Your task to perform on an android device: Go to Yahoo.com Image 0: 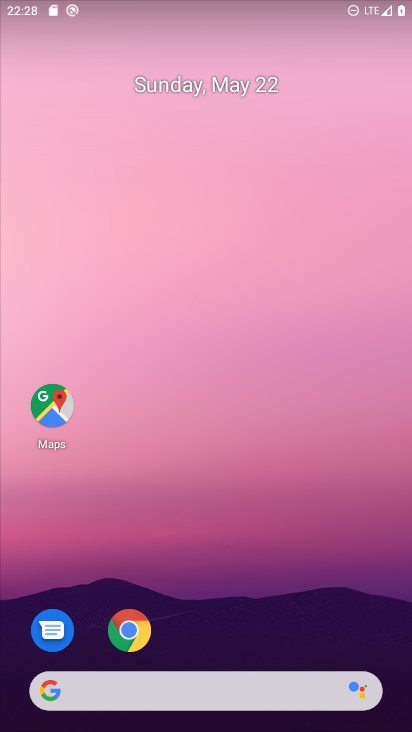
Step 0: press home button
Your task to perform on an android device: Go to Yahoo.com Image 1: 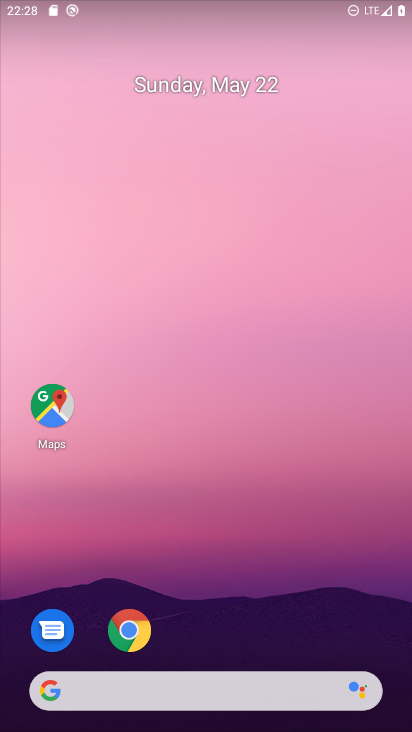
Step 1: drag from (175, 696) to (357, 47)
Your task to perform on an android device: Go to Yahoo.com Image 2: 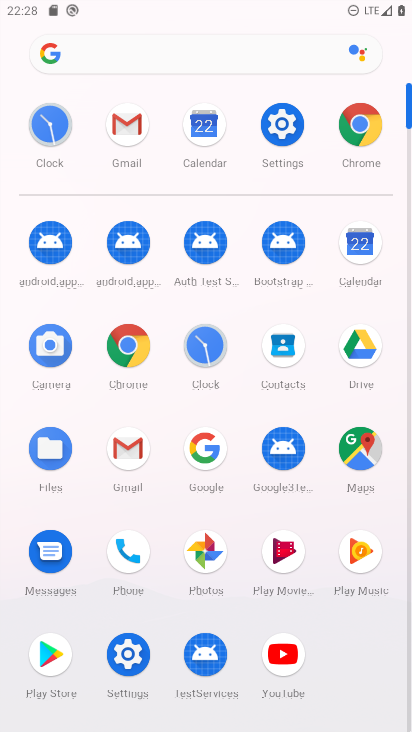
Step 2: click (364, 131)
Your task to perform on an android device: Go to Yahoo.com Image 3: 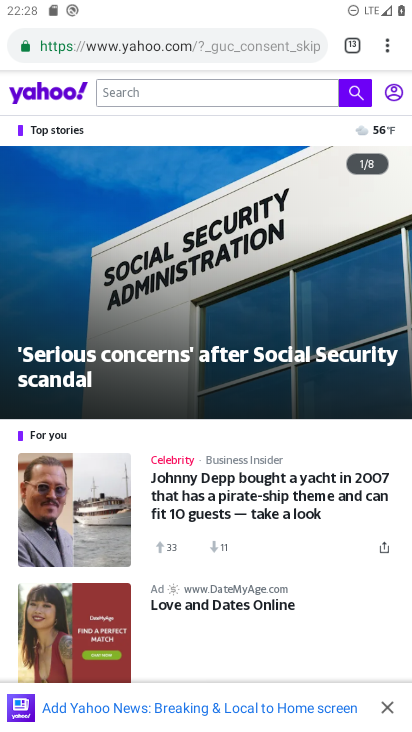
Step 3: task complete